Your task to perform on an android device: Open Youtube and go to the subscriptions tab Image 0: 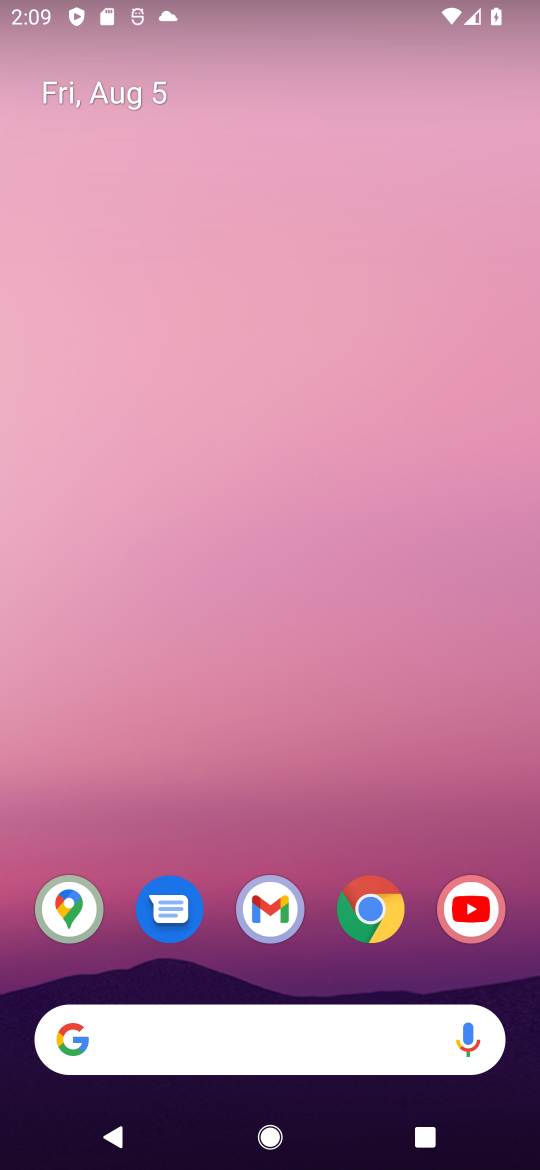
Step 0: click (480, 971)
Your task to perform on an android device: Open Youtube and go to the subscriptions tab Image 1: 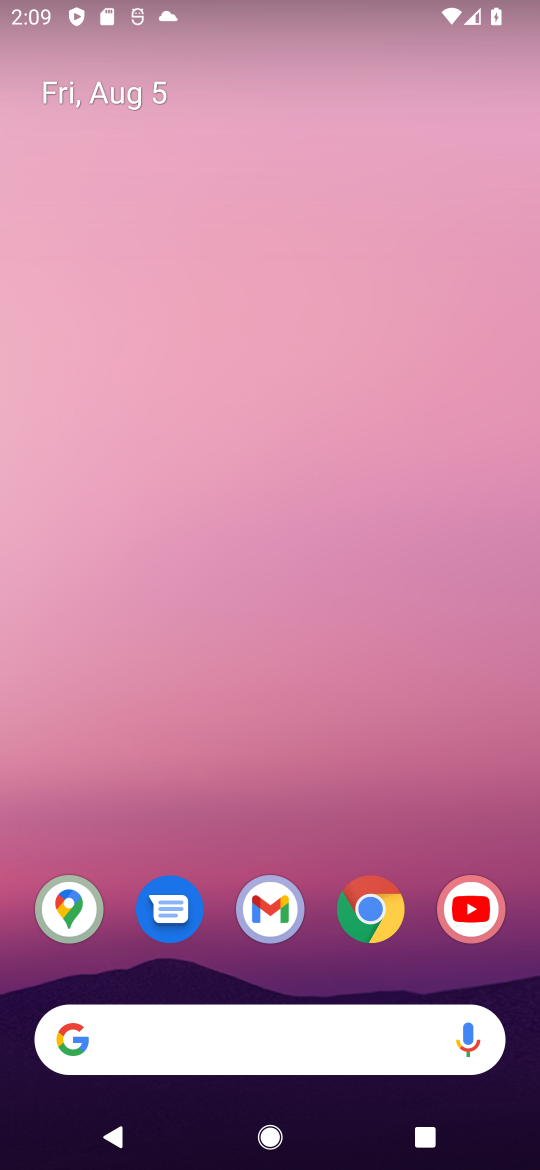
Step 1: click (473, 939)
Your task to perform on an android device: Open Youtube and go to the subscriptions tab Image 2: 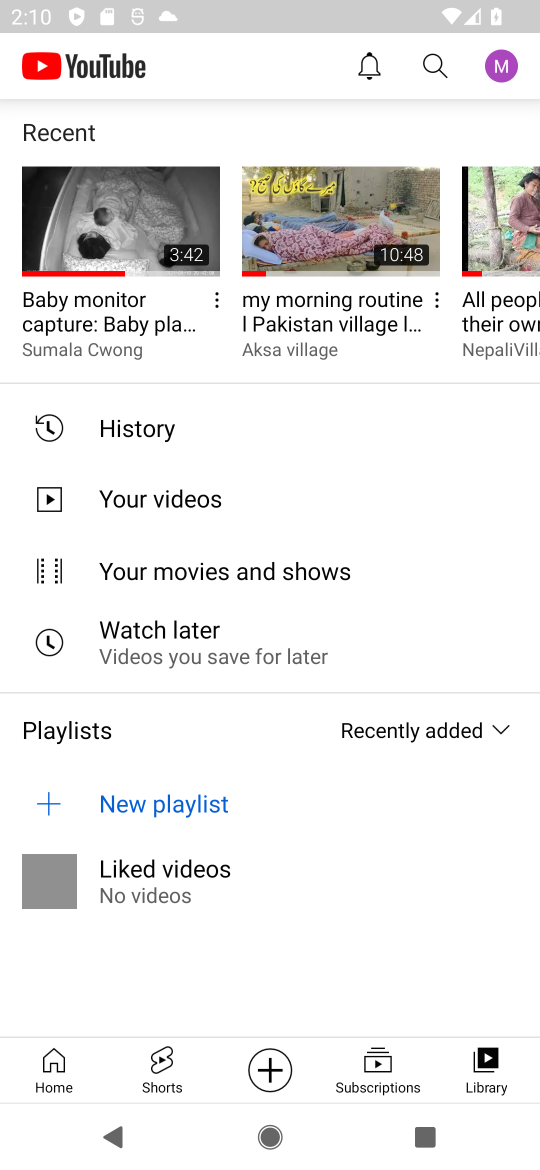
Step 2: click (366, 1072)
Your task to perform on an android device: Open Youtube and go to the subscriptions tab Image 3: 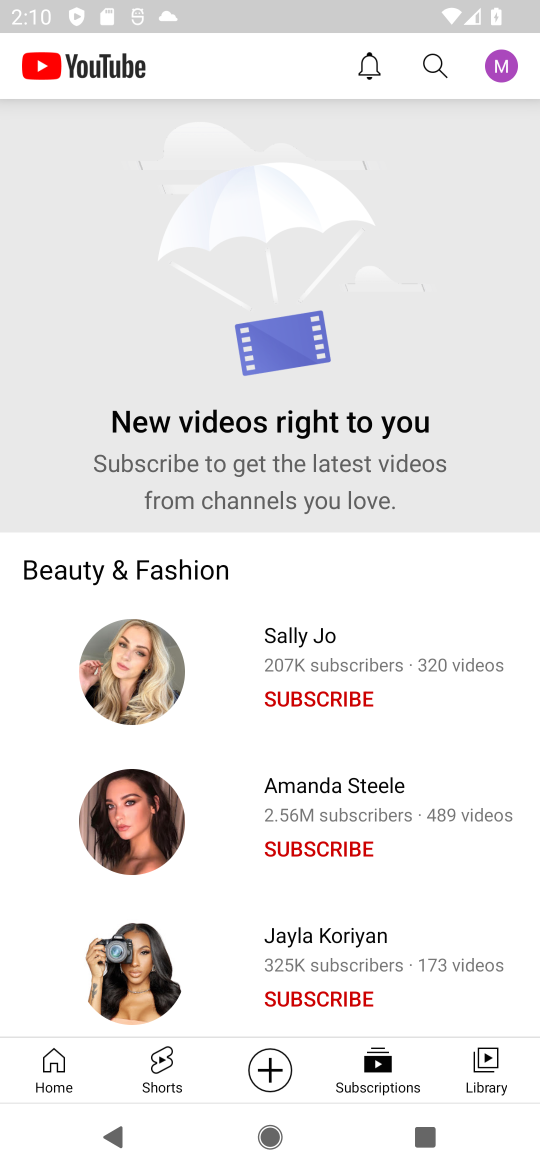
Step 3: task complete